Your task to perform on an android device: open a bookmark in the chrome app Image 0: 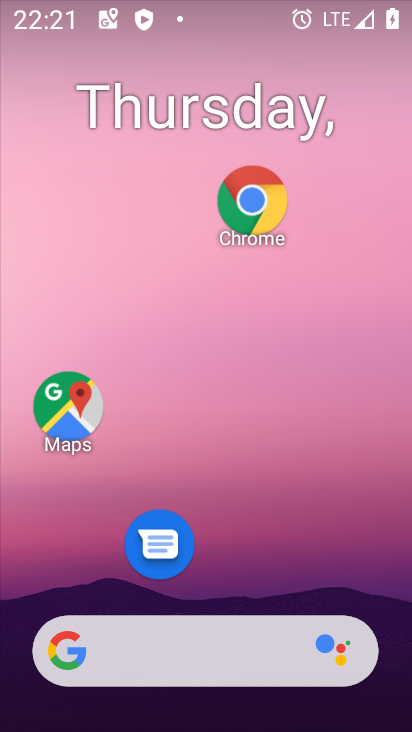
Step 0: click (253, 198)
Your task to perform on an android device: open a bookmark in the chrome app Image 1: 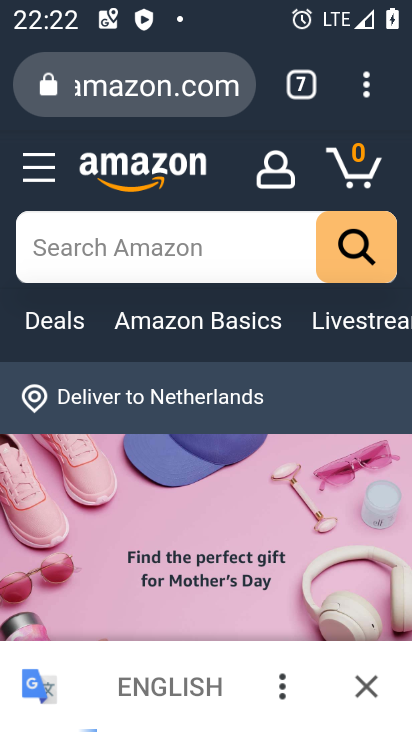
Step 1: click (360, 90)
Your task to perform on an android device: open a bookmark in the chrome app Image 2: 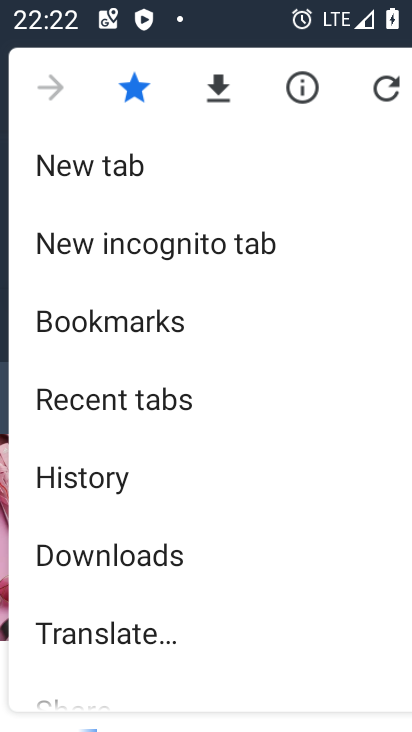
Step 2: click (206, 335)
Your task to perform on an android device: open a bookmark in the chrome app Image 3: 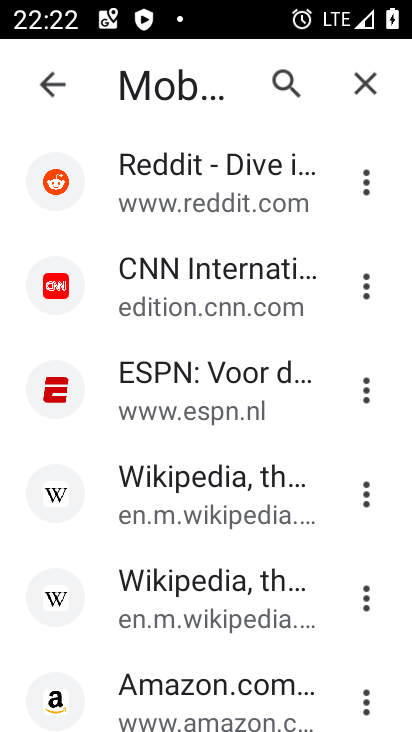
Step 3: drag from (187, 366) to (200, 73)
Your task to perform on an android device: open a bookmark in the chrome app Image 4: 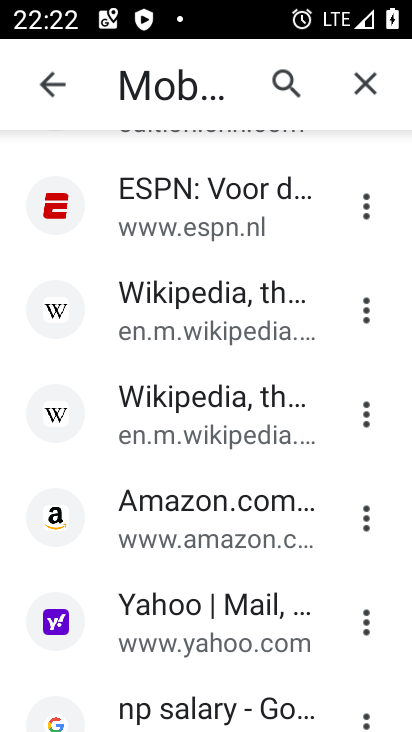
Step 4: click (134, 697)
Your task to perform on an android device: open a bookmark in the chrome app Image 5: 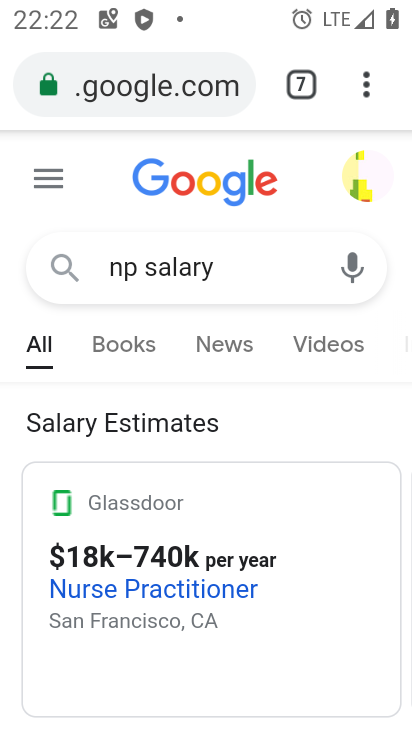
Step 5: task complete